Your task to perform on an android device: Go to sound settings Image 0: 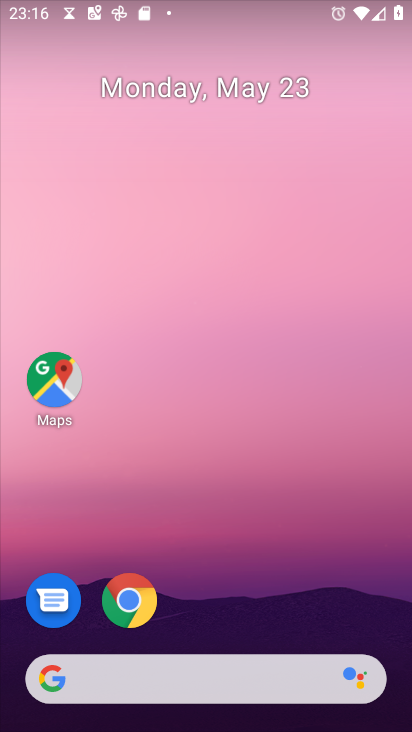
Step 0: drag from (213, 728) to (207, 57)
Your task to perform on an android device: Go to sound settings Image 1: 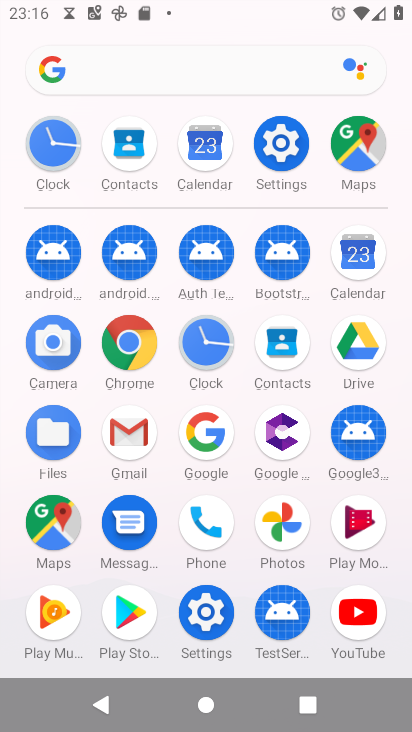
Step 1: click (284, 140)
Your task to perform on an android device: Go to sound settings Image 2: 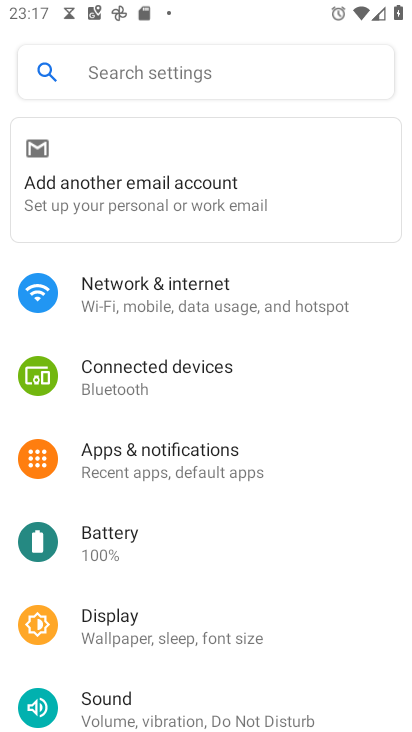
Step 2: drag from (154, 685) to (164, 387)
Your task to perform on an android device: Go to sound settings Image 3: 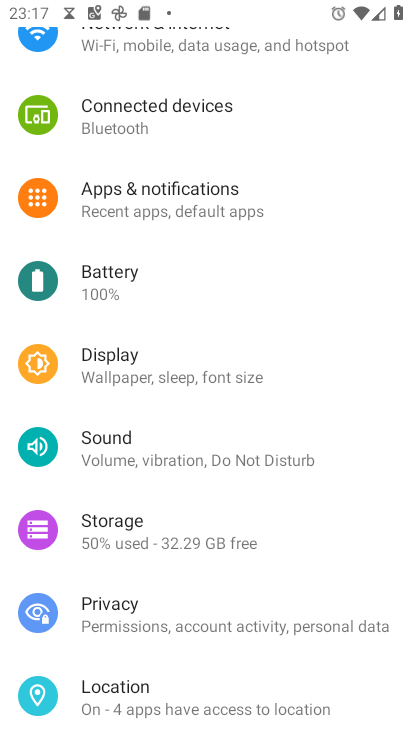
Step 3: click (133, 445)
Your task to perform on an android device: Go to sound settings Image 4: 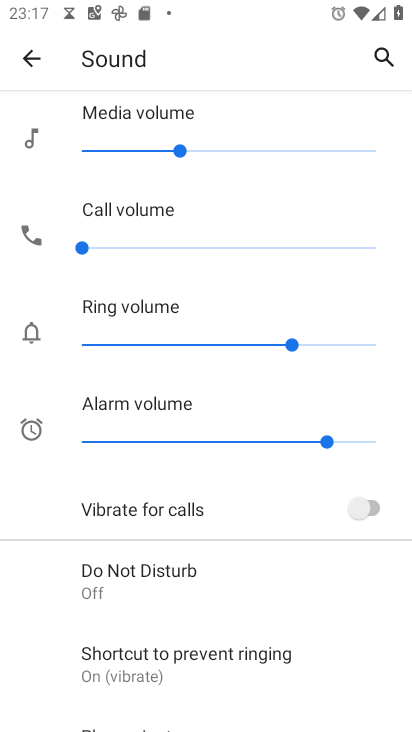
Step 4: task complete